Your task to perform on an android device: Open display settings Image 0: 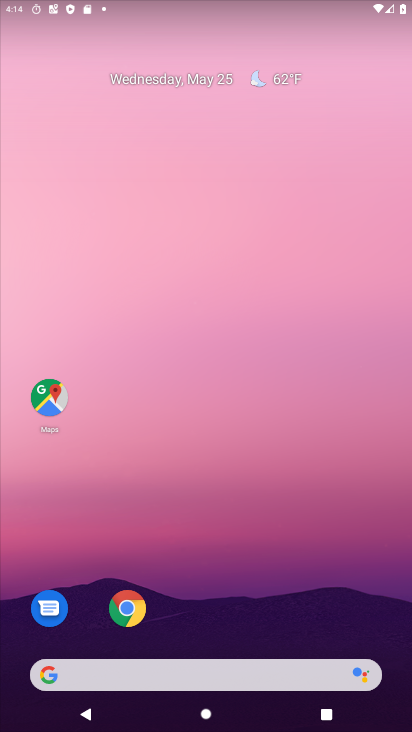
Step 0: drag from (261, 591) to (202, 122)
Your task to perform on an android device: Open display settings Image 1: 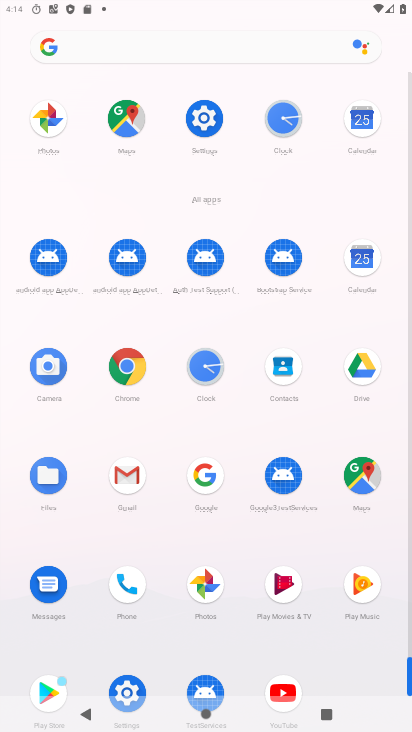
Step 1: click (205, 114)
Your task to perform on an android device: Open display settings Image 2: 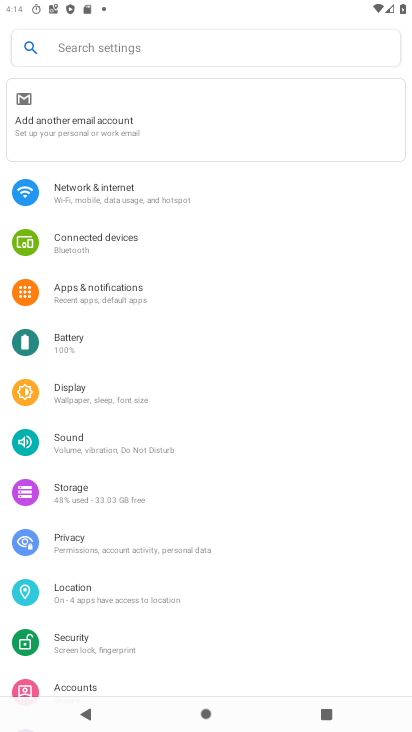
Step 2: click (72, 401)
Your task to perform on an android device: Open display settings Image 3: 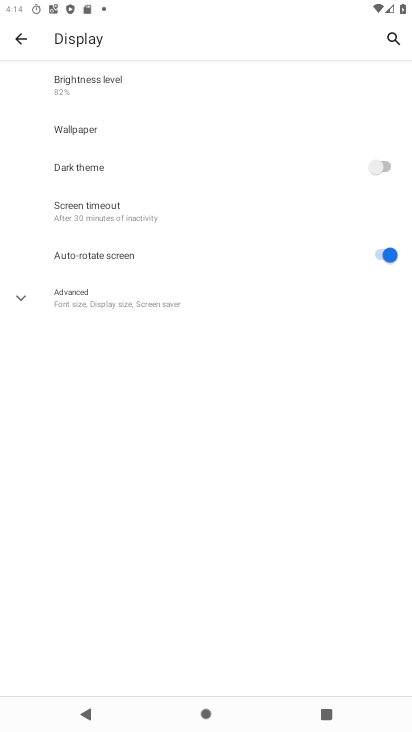
Step 3: task complete